Your task to perform on an android device: Open sound settings Image 0: 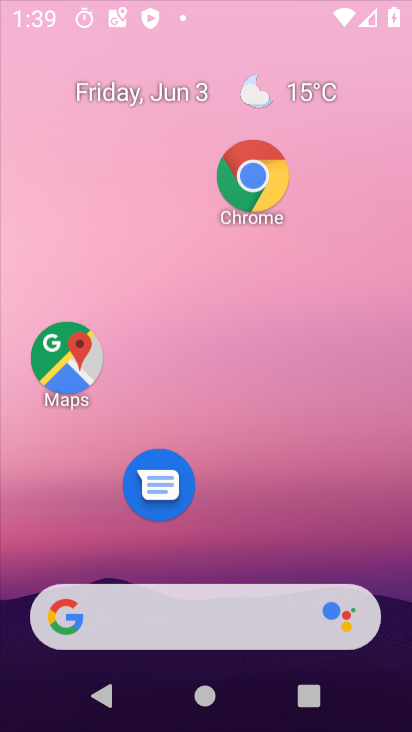
Step 0: press home button
Your task to perform on an android device: Open sound settings Image 1: 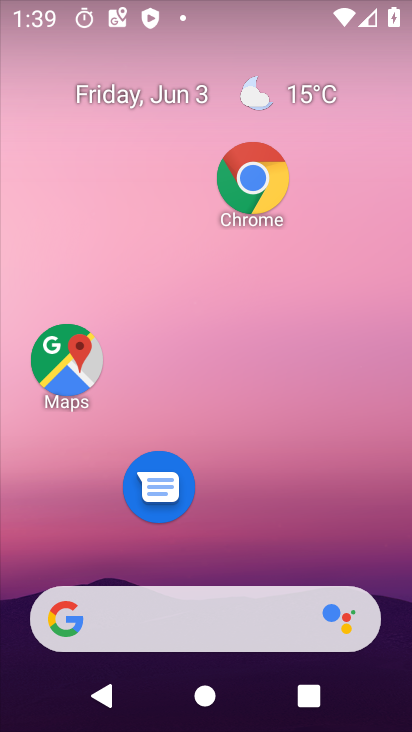
Step 1: drag from (200, 368) to (190, 79)
Your task to perform on an android device: Open sound settings Image 2: 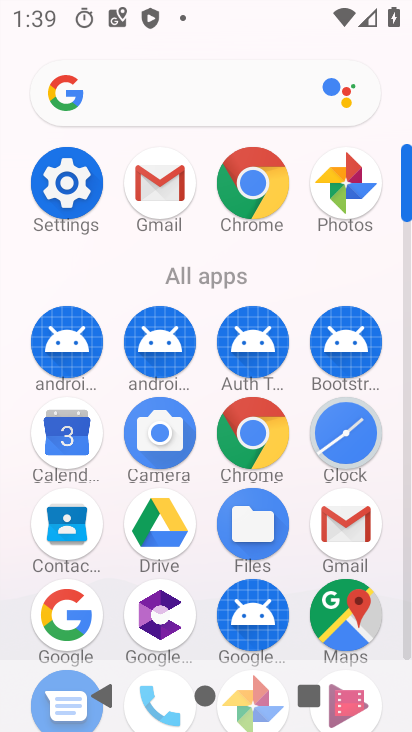
Step 2: click (202, 570)
Your task to perform on an android device: Open sound settings Image 3: 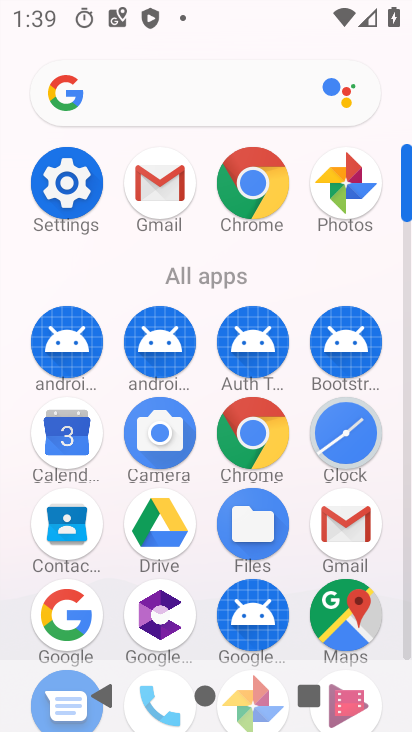
Step 3: drag from (202, 331) to (205, 117)
Your task to perform on an android device: Open sound settings Image 4: 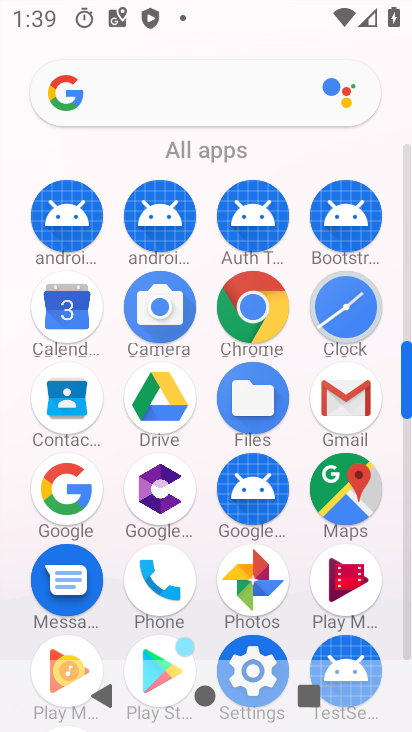
Step 4: click (253, 644)
Your task to perform on an android device: Open sound settings Image 5: 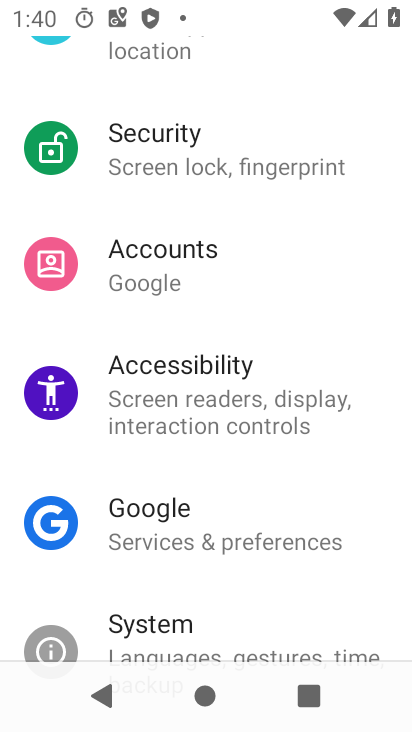
Step 5: drag from (190, 67) to (193, 623)
Your task to perform on an android device: Open sound settings Image 6: 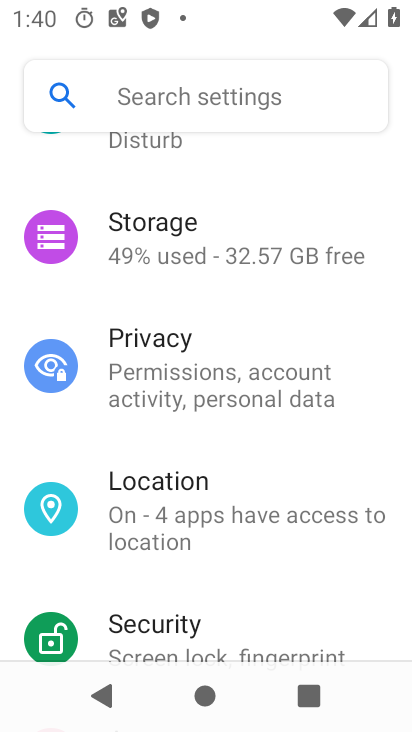
Step 6: drag from (221, 163) to (227, 657)
Your task to perform on an android device: Open sound settings Image 7: 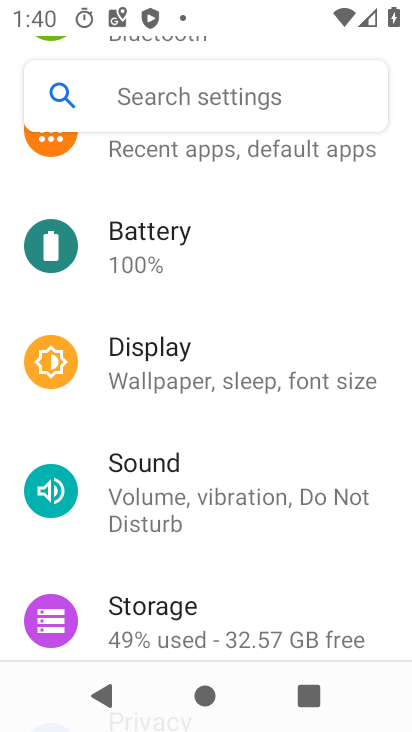
Step 7: click (227, 679)
Your task to perform on an android device: Open sound settings Image 8: 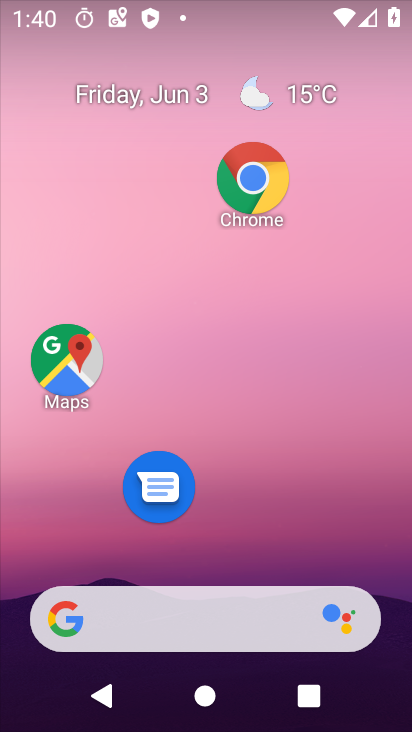
Step 8: drag from (241, 148) to (244, 99)
Your task to perform on an android device: Open sound settings Image 9: 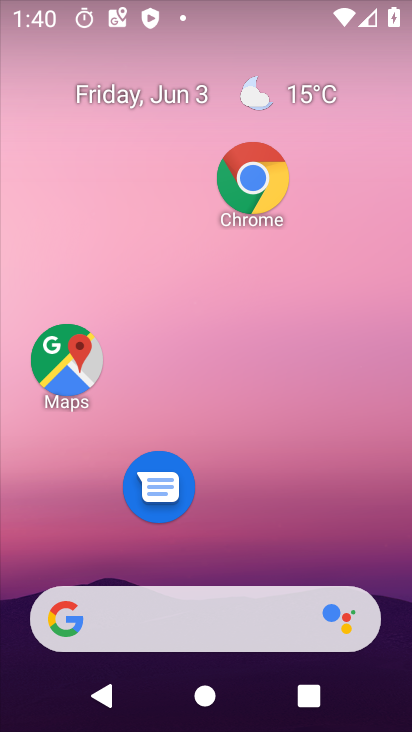
Step 9: drag from (215, 564) to (218, 3)
Your task to perform on an android device: Open sound settings Image 10: 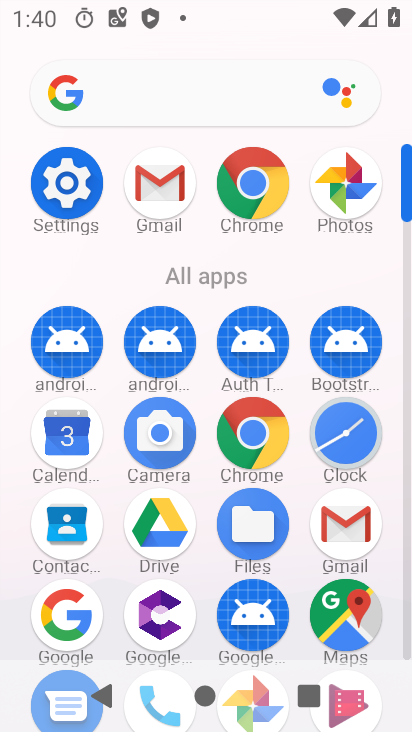
Step 10: click (73, 179)
Your task to perform on an android device: Open sound settings Image 11: 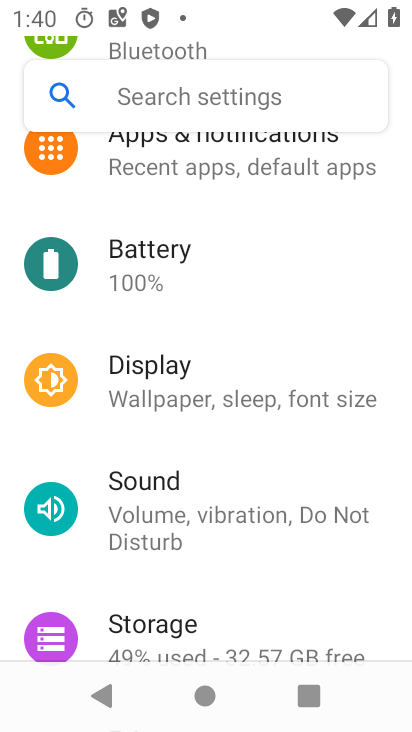
Step 11: click (186, 508)
Your task to perform on an android device: Open sound settings Image 12: 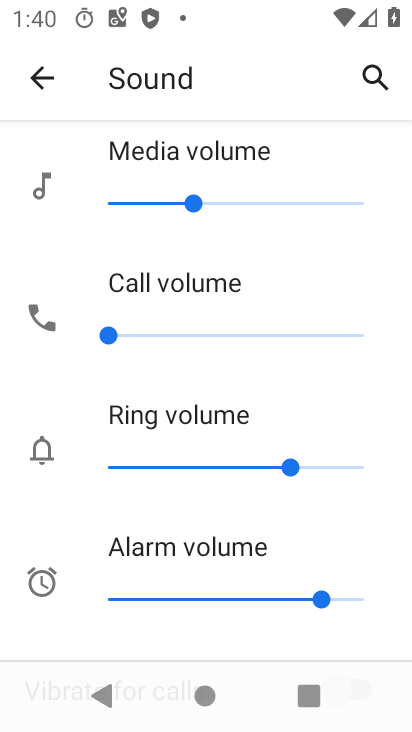
Step 12: click (247, 134)
Your task to perform on an android device: Open sound settings Image 13: 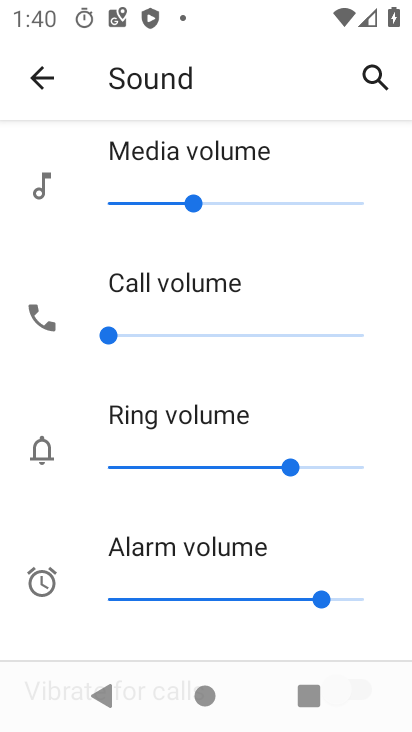
Step 13: drag from (76, 573) to (125, 141)
Your task to perform on an android device: Open sound settings Image 14: 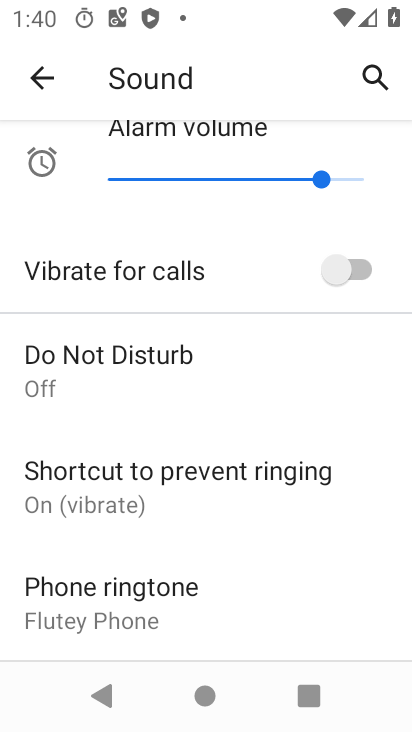
Step 14: drag from (186, 490) to (223, 161)
Your task to perform on an android device: Open sound settings Image 15: 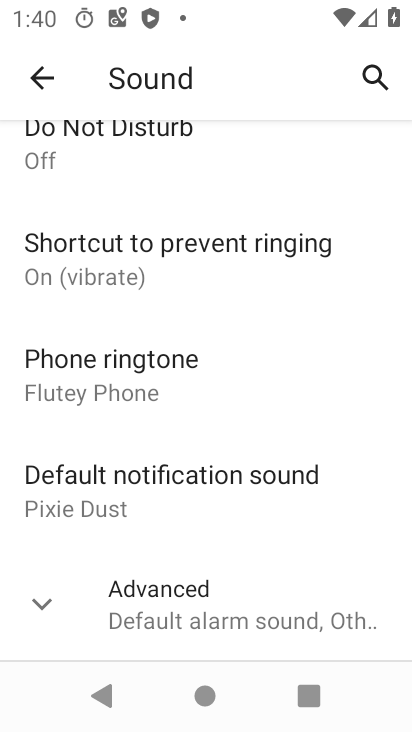
Step 15: click (48, 600)
Your task to perform on an android device: Open sound settings Image 16: 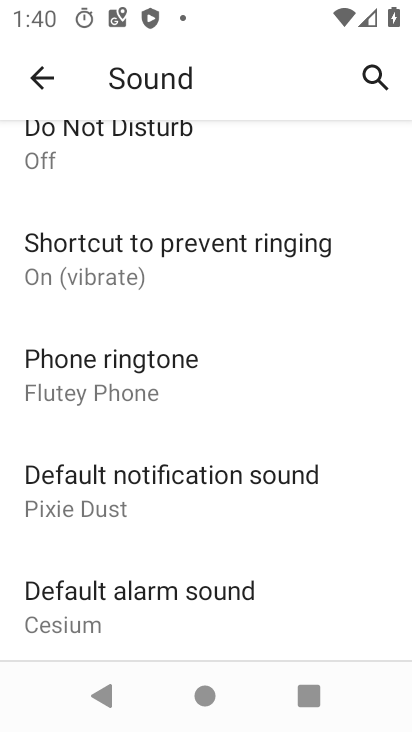
Step 16: task complete